Your task to perform on an android device: What's on my calendar tomorrow? Image 0: 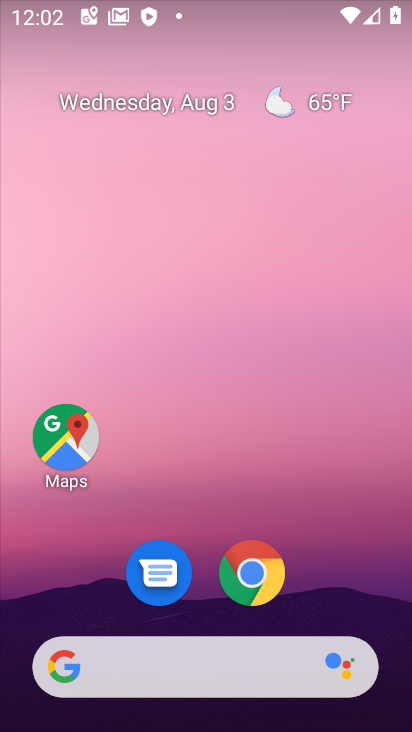
Step 0: drag from (200, 507) to (253, 65)
Your task to perform on an android device: What's on my calendar tomorrow? Image 1: 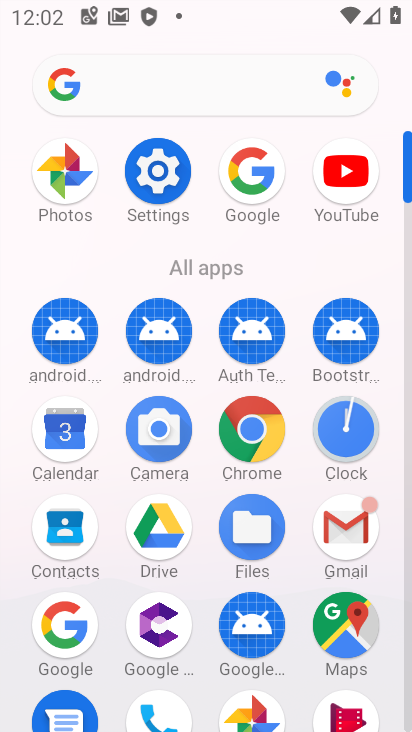
Step 1: click (67, 456)
Your task to perform on an android device: What's on my calendar tomorrow? Image 2: 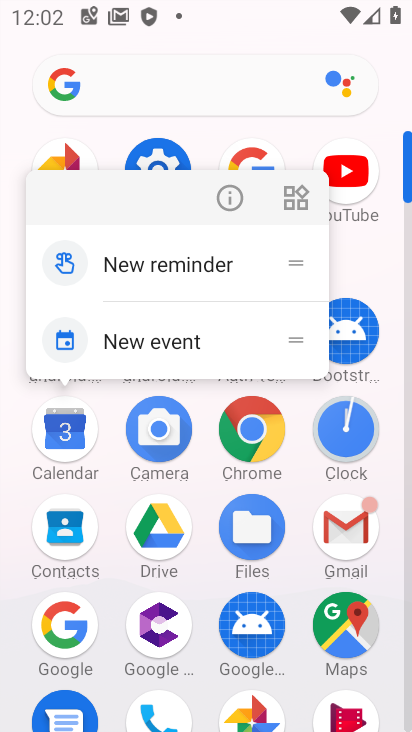
Step 2: click (221, 198)
Your task to perform on an android device: What's on my calendar tomorrow? Image 3: 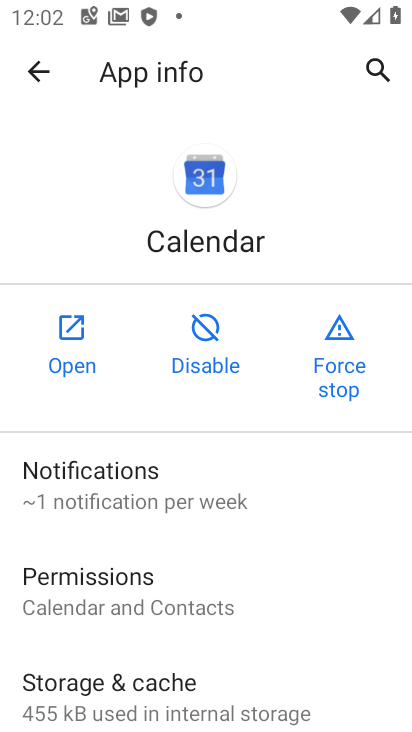
Step 3: click (84, 353)
Your task to perform on an android device: What's on my calendar tomorrow? Image 4: 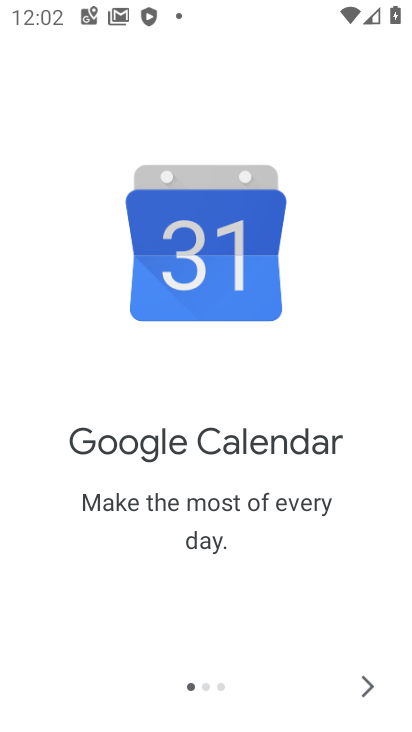
Step 4: click (224, 367)
Your task to perform on an android device: What's on my calendar tomorrow? Image 5: 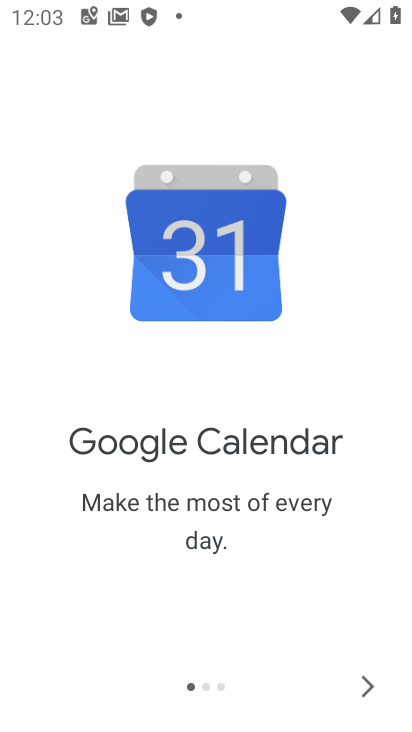
Step 5: drag from (273, 489) to (253, 262)
Your task to perform on an android device: What's on my calendar tomorrow? Image 6: 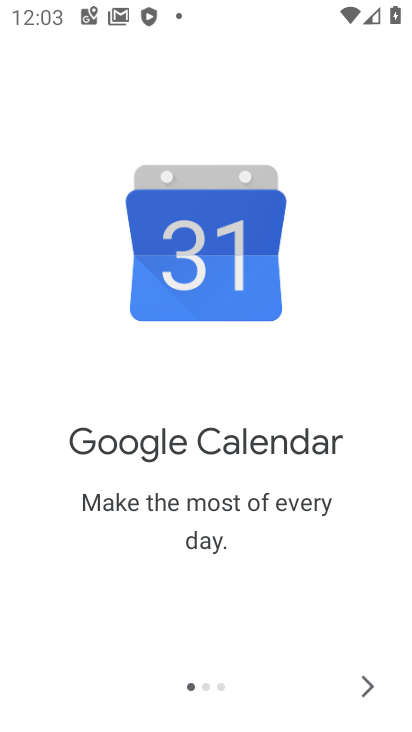
Step 6: click (371, 681)
Your task to perform on an android device: What's on my calendar tomorrow? Image 7: 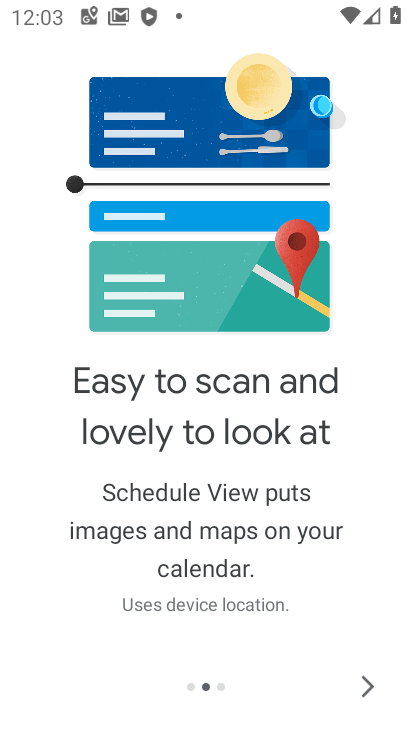
Step 7: click (370, 680)
Your task to perform on an android device: What's on my calendar tomorrow? Image 8: 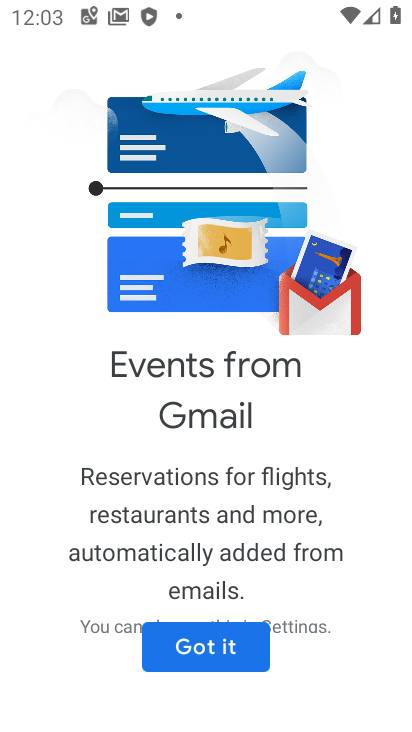
Step 8: click (227, 656)
Your task to perform on an android device: What's on my calendar tomorrow? Image 9: 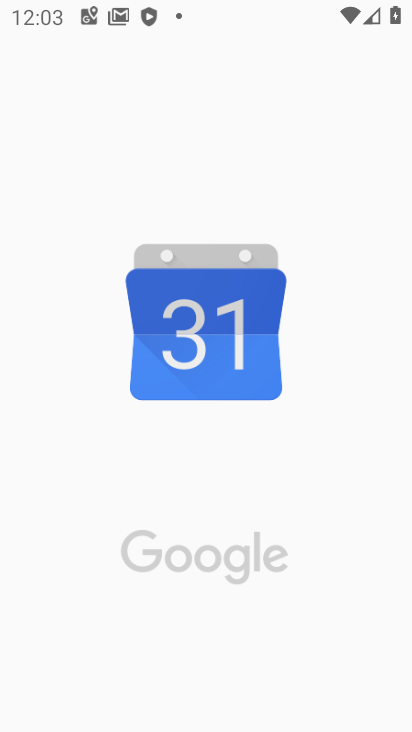
Step 9: drag from (234, 649) to (194, 276)
Your task to perform on an android device: What's on my calendar tomorrow? Image 10: 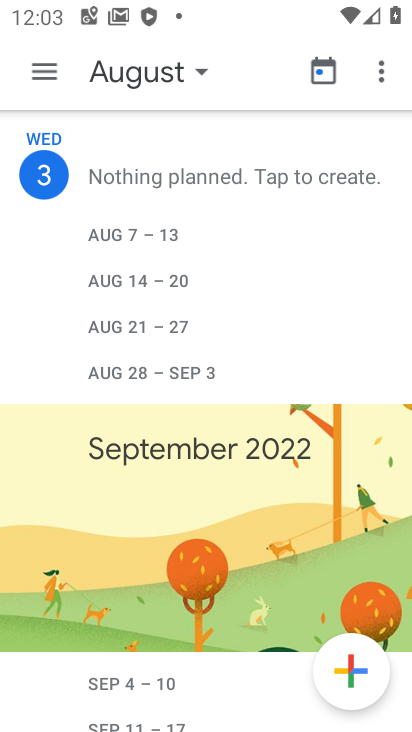
Step 10: click (333, 84)
Your task to perform on an android device: What's on my calendar tomorrow? Image 11: 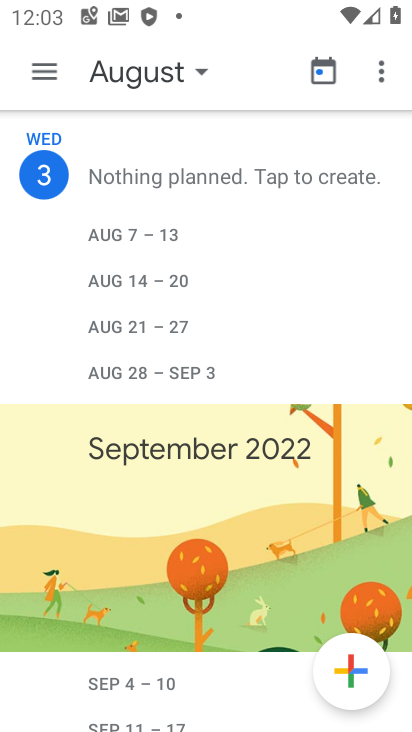
Step 11: click (327, 81)
Your task to perform on an android device: What's on my calendar tomorrow? Image 12: 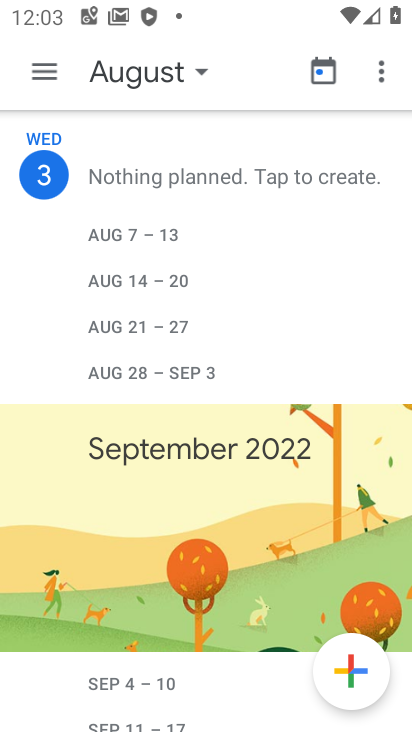
Step 12: click (161, 83)
Your task to perform on an android device: What's on my calendar tomorrow? Image 13: 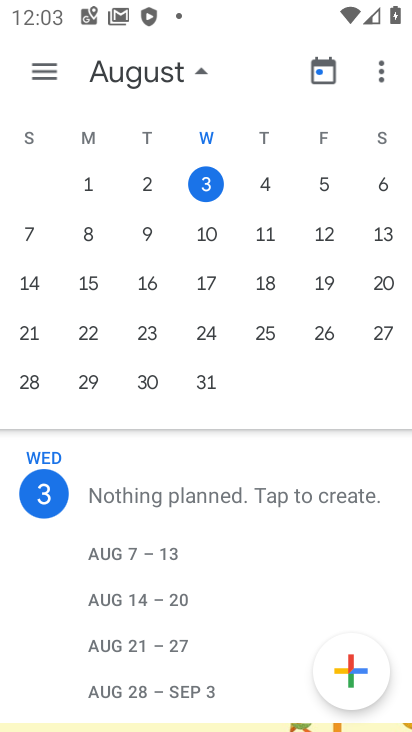
Step 13: click (260, 189)
Your task to perform on an android device: What's on my calendar tomorrow? Image 14: 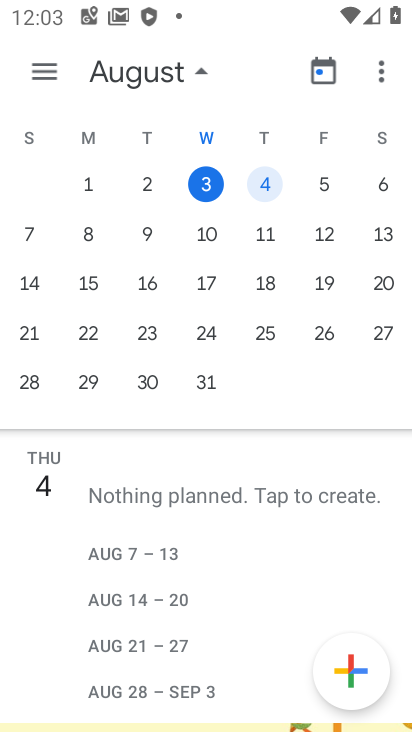
Step 14: task complete